Your task to perform on an android device: Do I have any events this weekend? Image 0: 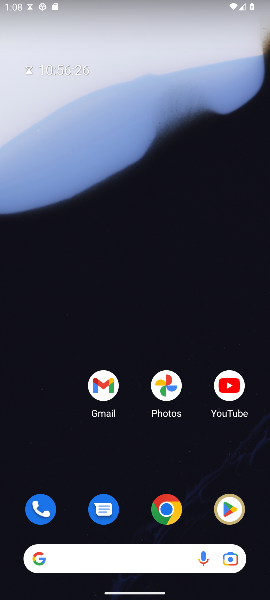
Step 0: drag from (134, 530) to (201, 116)
Your task to perform on an android device: Do I have any events this weekend? Image 1: 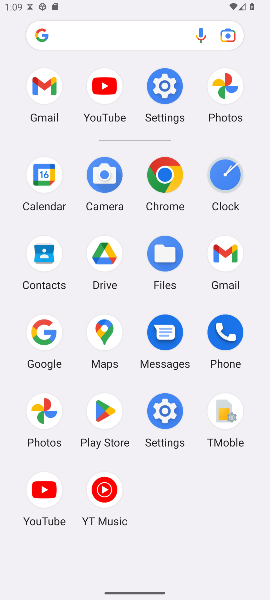
Step 1: click (32, 174)
Your task to perform on an android device: Do I have any events this weekend? Image 2: 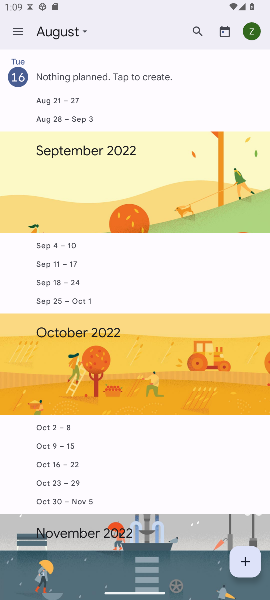
Step 2: click (23, 32)
Your task to perform on an android device: Do I have any events this weekend? Image 3: 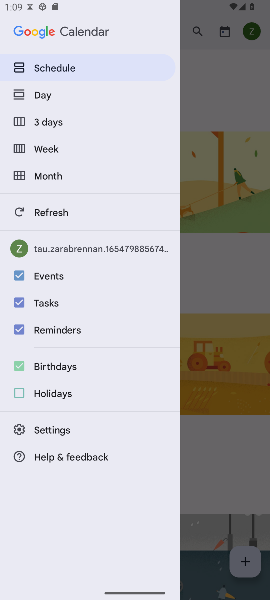
Step 3: click (45, 150)
Your task to perform on an android device: Do I have any events this weekend? Image 4: 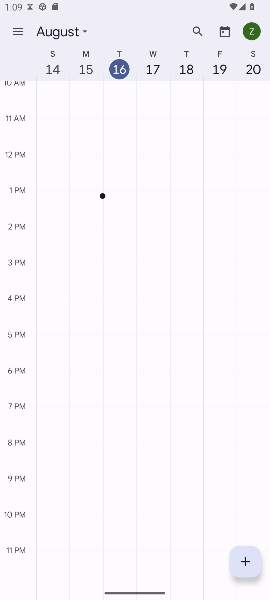
Step 4: task complete